Your task to perform on an android device: Search for flights from Seoul to Mexico city Image 0: 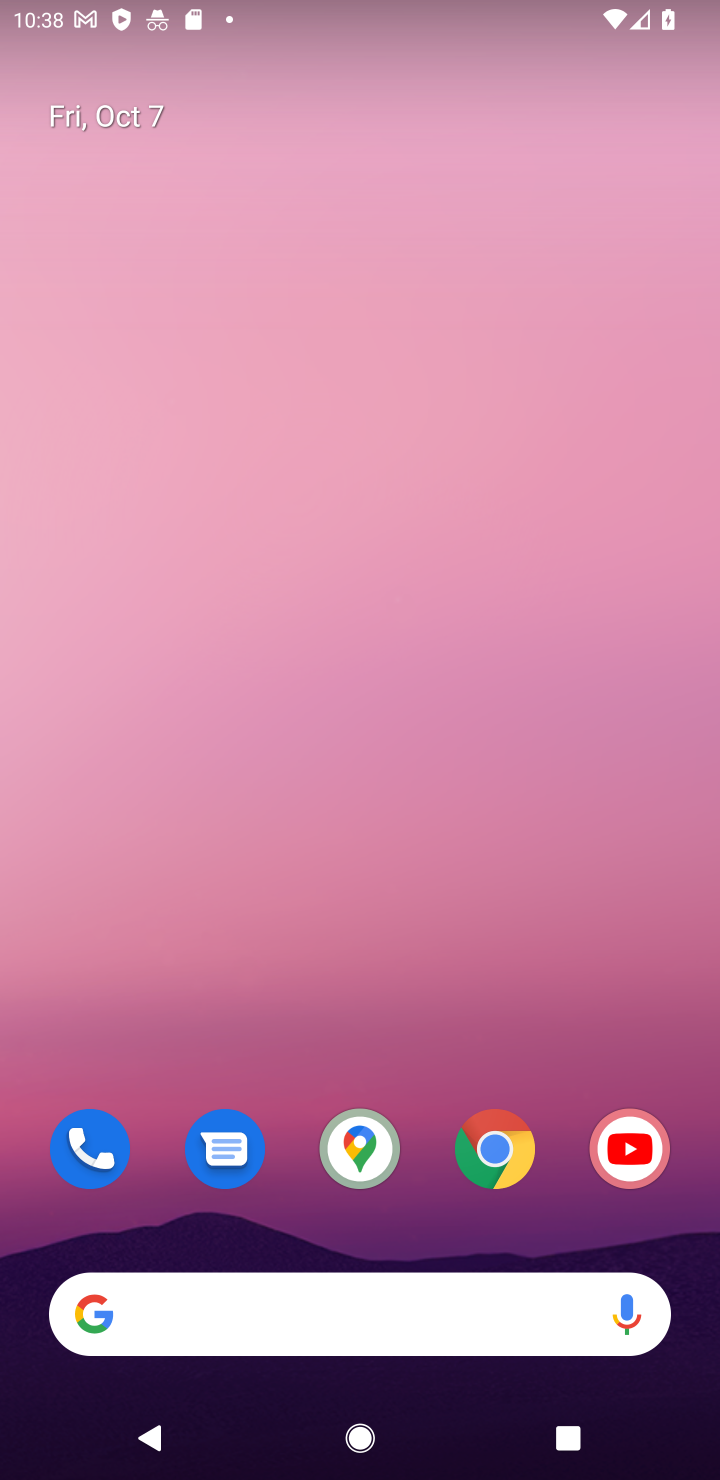
Step 0: drag from (437, 1238) to (386, 134)
Your task to perform on an android device: Search for flights from Seoul to Mexico city Image 1: 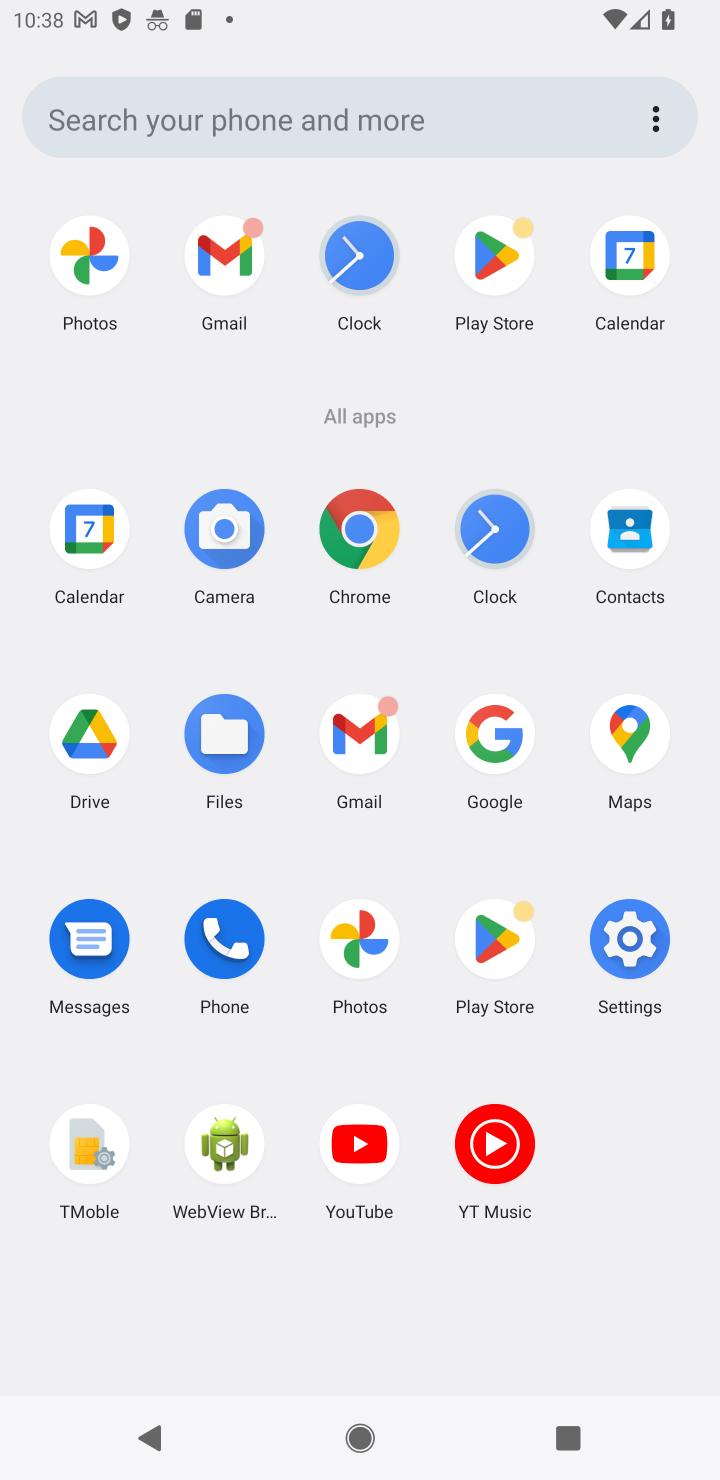
Step 1: press home button
Your task to perform on an android device: Search for flights from Seoul to Mexico city Image 2: 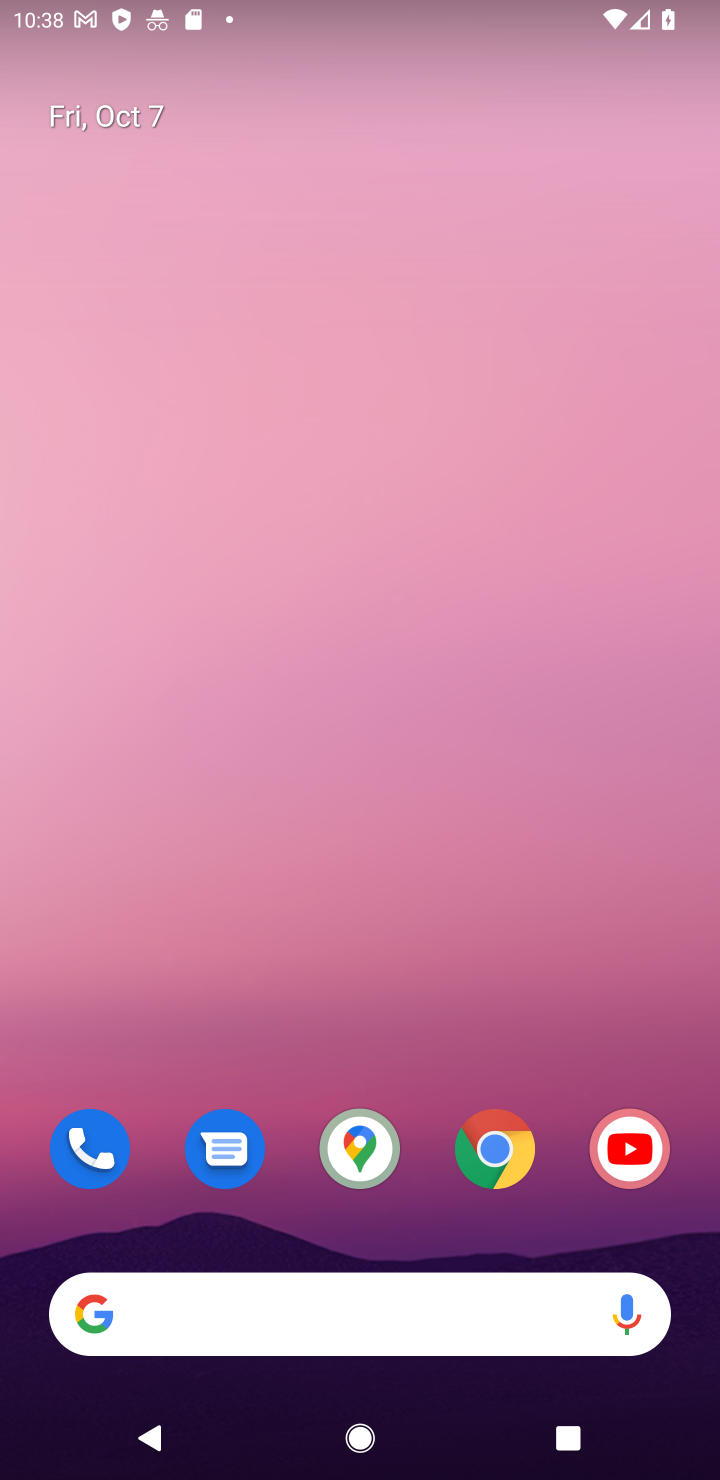
Step 2: click (300, 1308)
Your task to perform on an android device: Search for flights from Seoul to Mexico city Image 3: 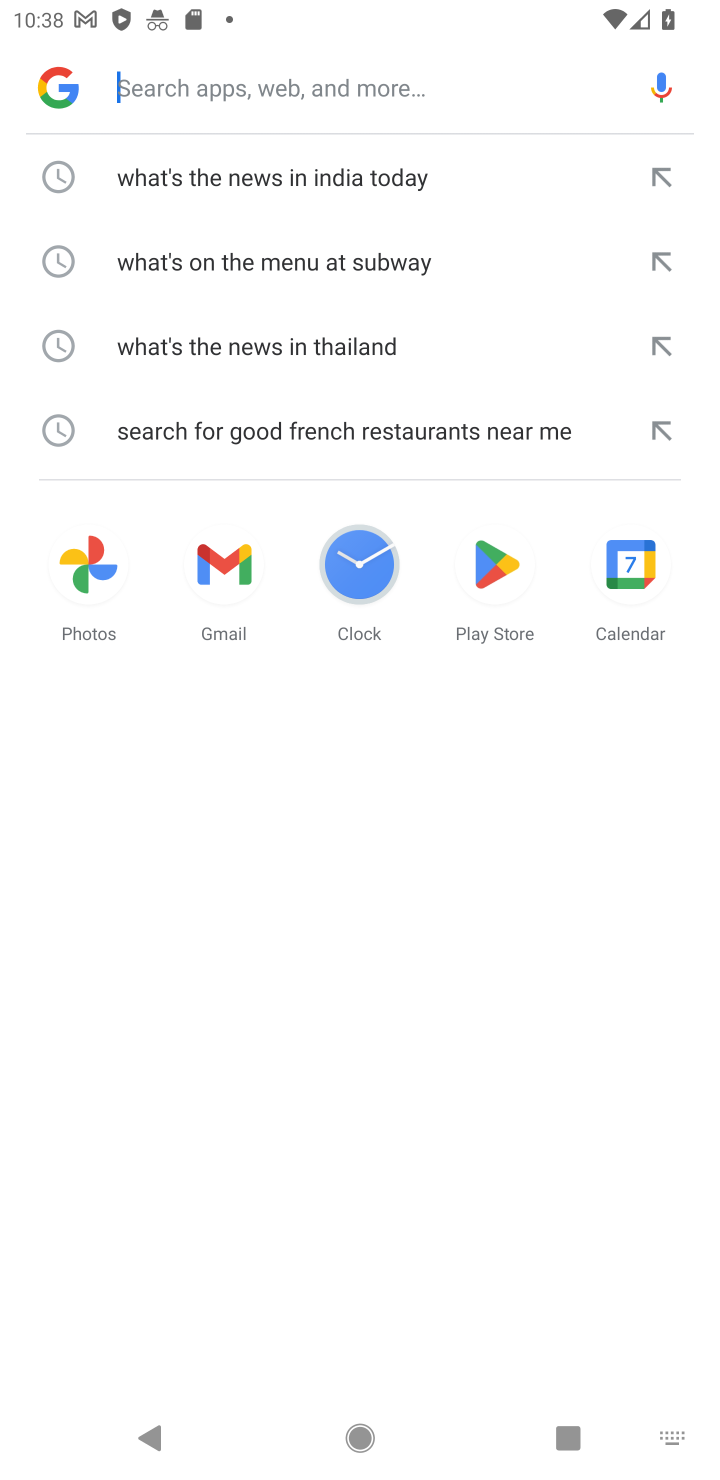
Step 3: type "Search for flights from Seoul to Mexico city"
Your task to perform on an android device: Search for flights from Seoul to Mexico city Image 4: 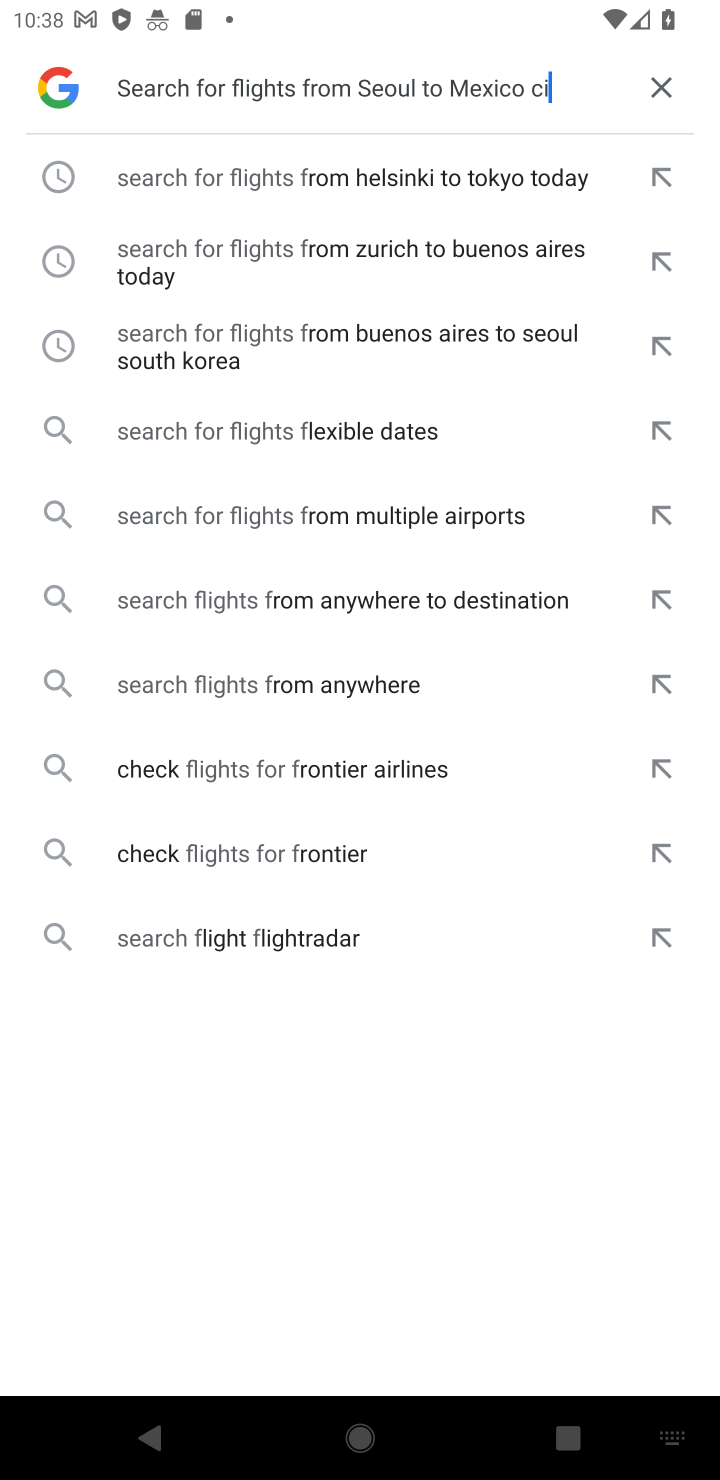
Step 4: task complete